Your task to perform on an android device: open sync settings in chrome Image 0: 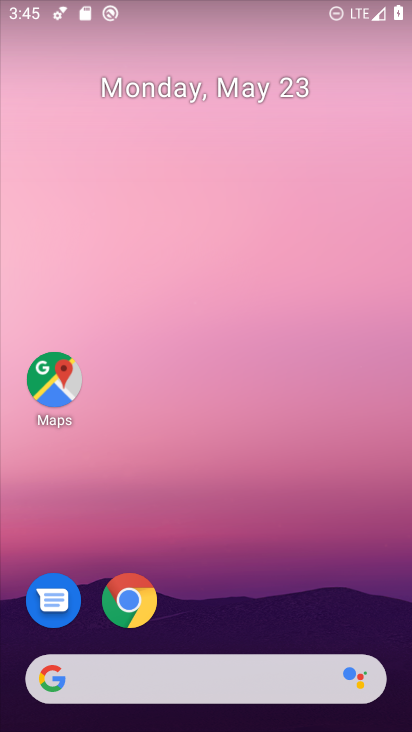
Step 0: drag from (245, 254) to (248, 4)
Your task to perform on an android device: open sync settings in chrome Image 1: 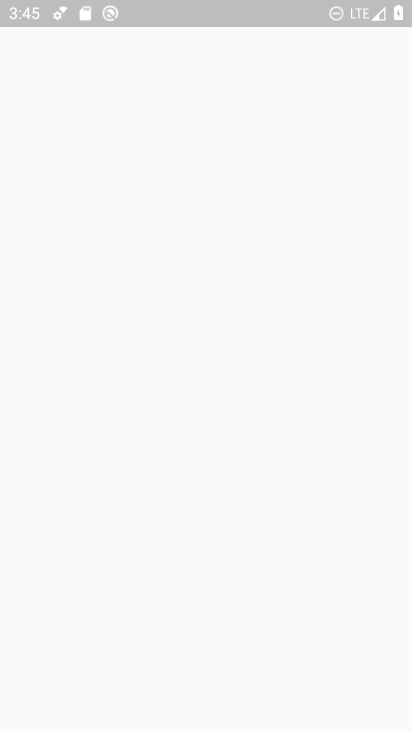
Step 1: press home button
Your task to perform on an android device: open sync settings in chrome Image 2: 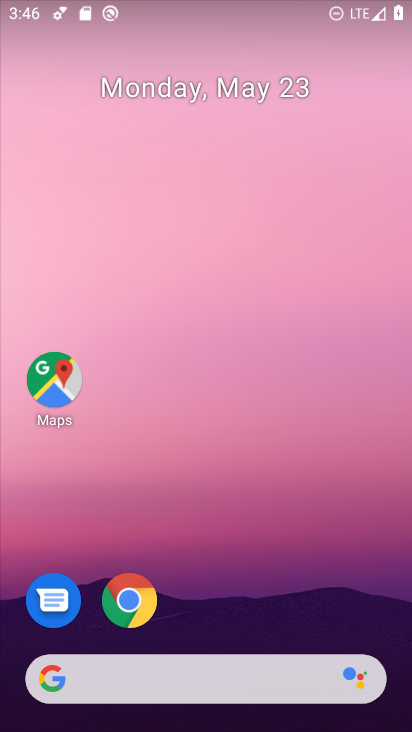
Step 2: click (140, 610)
Your task to perform on an android device: open sync settings in chrome Image 3: 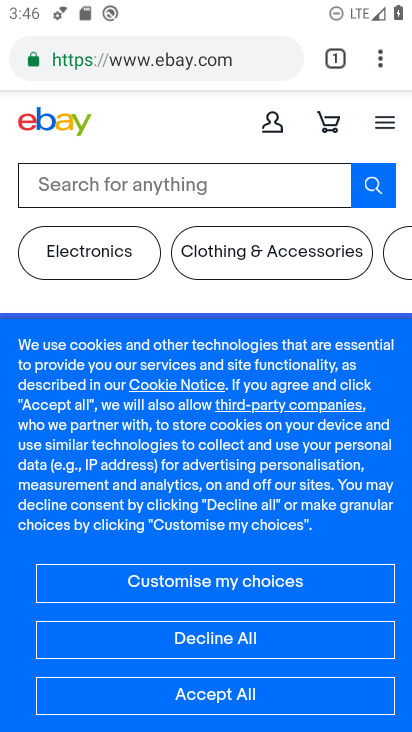
Step 3: click (380, 63)
Your task to perform on an android device: open sync settings in chrome Image 4: 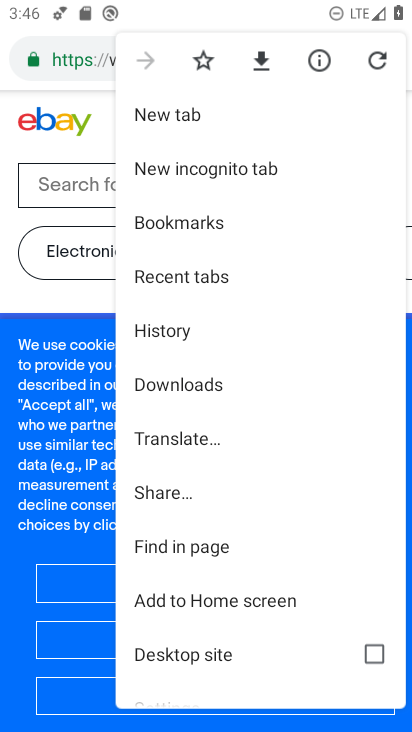
Step 4: drag from (301, 573) to (280, 253)
Your task to perform on an android device: open sync settings in chrome Image 5: 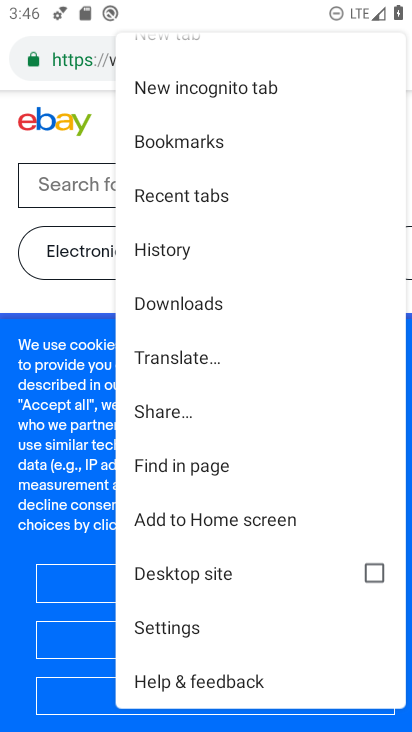
Step 5: click (161, 630)
Your task to perform on an android device: open sync settings in chrome Image 6: 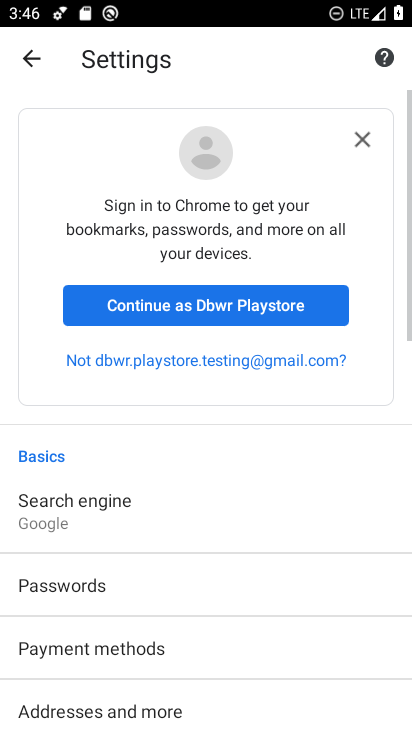
Step 6: click (201, 306)
Your task to perform on an android device: open sync settings in chrome Image 7: 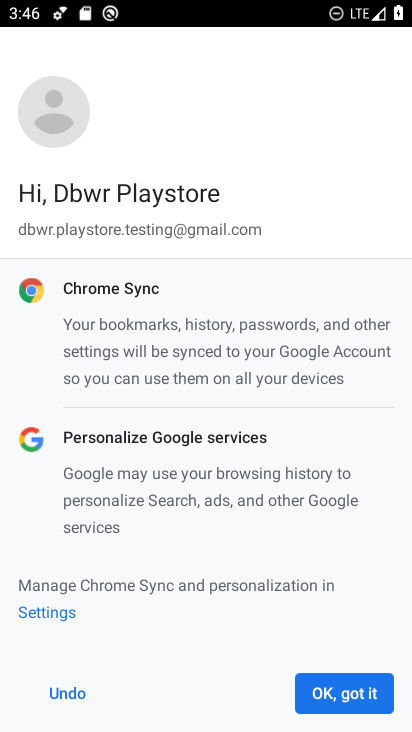
Step 7: click (355, 693)
Your task to perform on an android device: open sync settings in chrome Image 8: 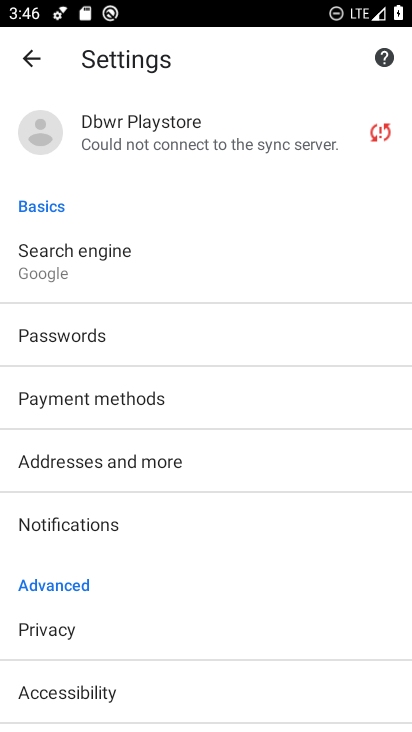
Step 8: click (150, 144)
Your task to perform on an android device: open sync settings in chrome Image 9: 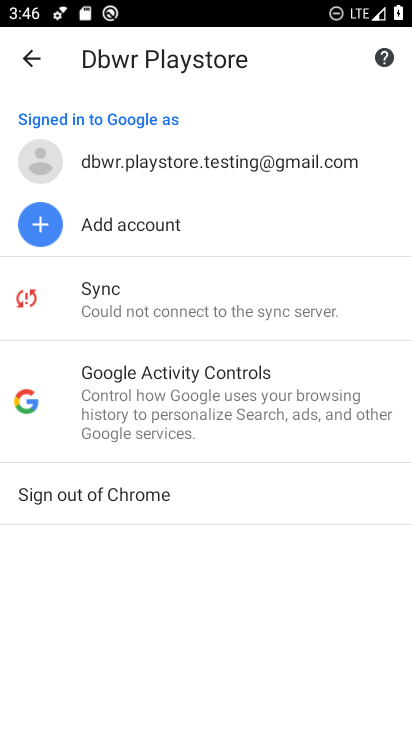
Step 9: click (136, 311)
Your task to perform on an android device: open sync settings in chrome Image 10: 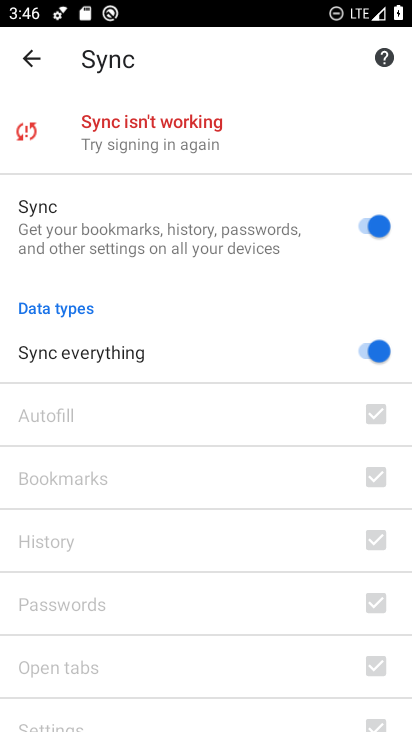
Step 10: task complete